Your task to perform on an android device: add a contact in the contacts app Image 0: 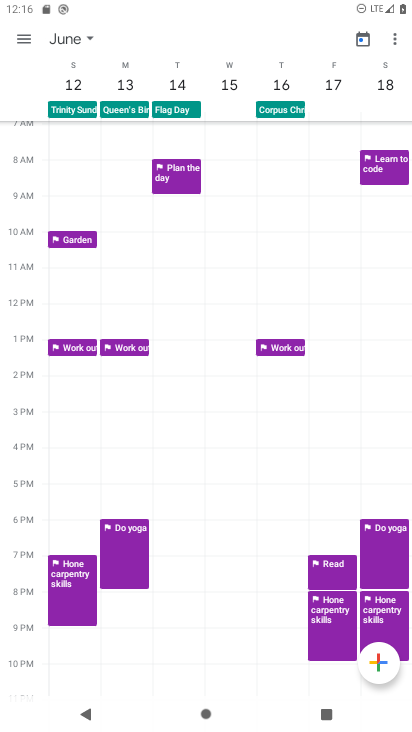
Step 0: press home button
Your task to perform on an android device: add a contact in the contacts app Image 1: 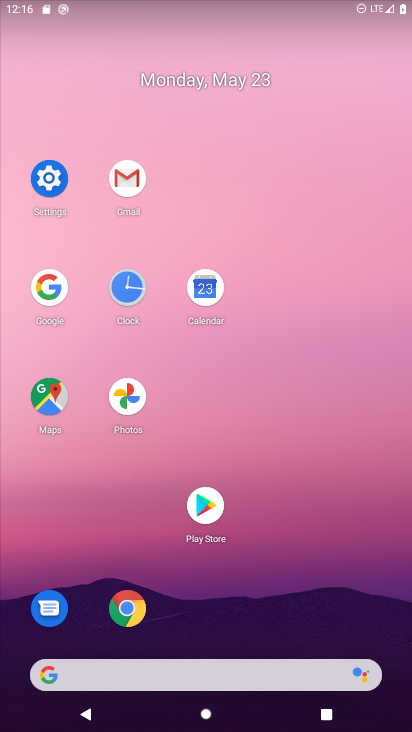
Step 1: drag from (357, 577) to (311, 223)
Your task to perform on an android device: add a contact in the contacts app Image 2: 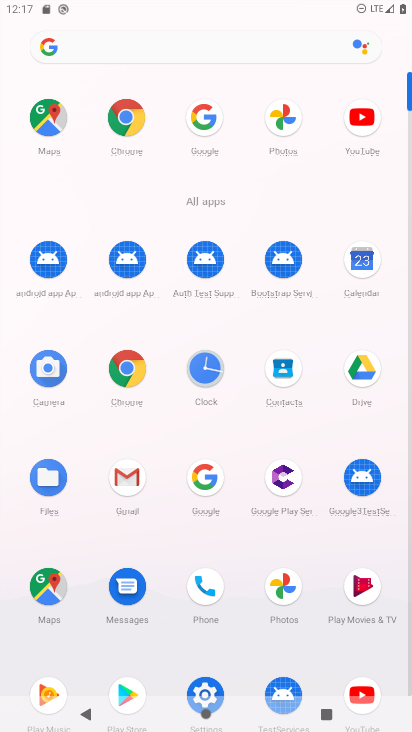
Step 2: click (296, 381)
Your task to perform on an android device: add a contact in the contacts app Image 3: 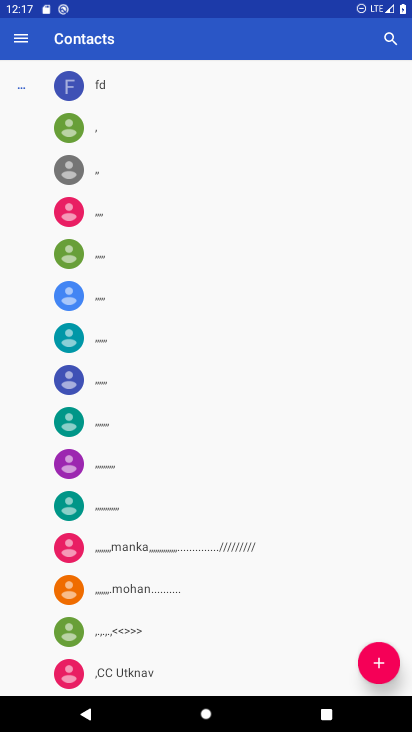
Step 3: click (392, 658)
Your task to perform on an android device: add a contact in the contacts app Image 4: 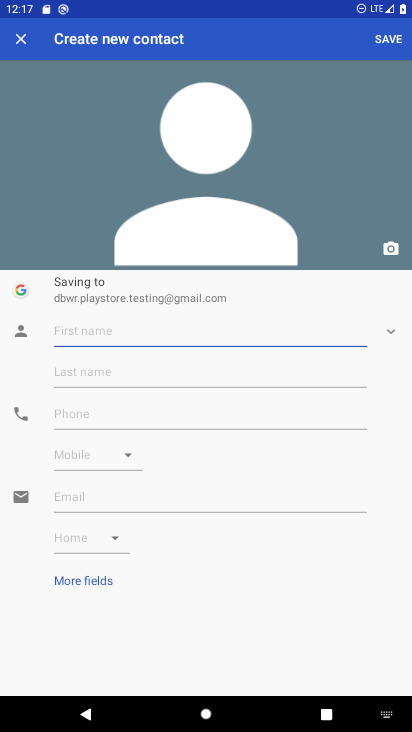
Step 4: type "sdcc"
Your task to perform on an android device: add a contact in the contacts app Image 5: 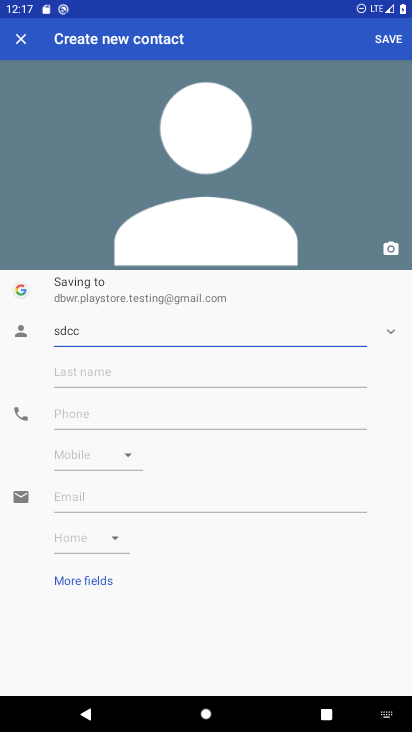
Step 5: click (169, 416)
Your task to perform on an android device: add a contact in the contacts app Image 6: 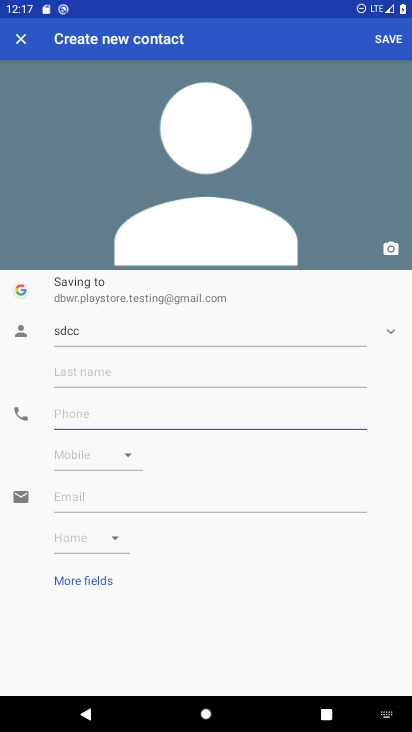
Step 6: click (220, 406)
Your task to perform on an android device: add a contact in the contacts app Image 7: 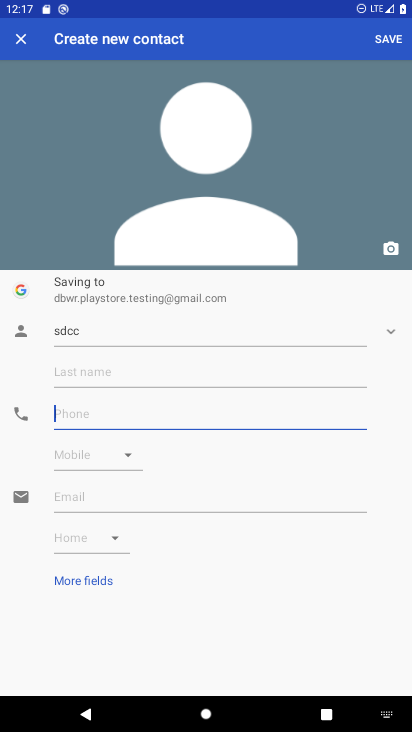
Step 7: type "4433221123"
Your task to perform on an android device: add a contact in the contacts app Image 8: 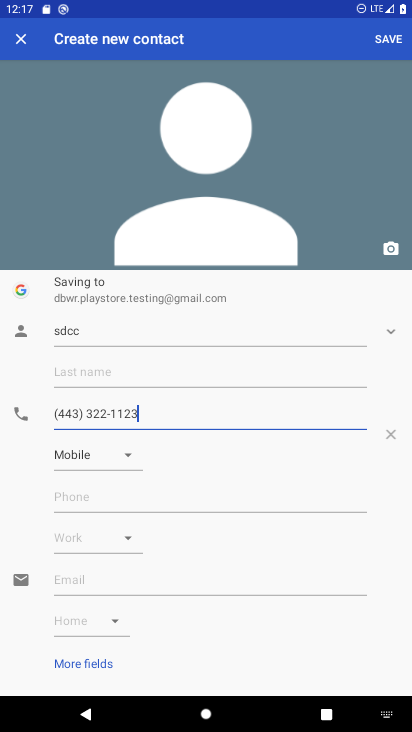
Step 8: click (385, 39)
Your task to perform on an android device: add a contact in the contacts app Image 9: 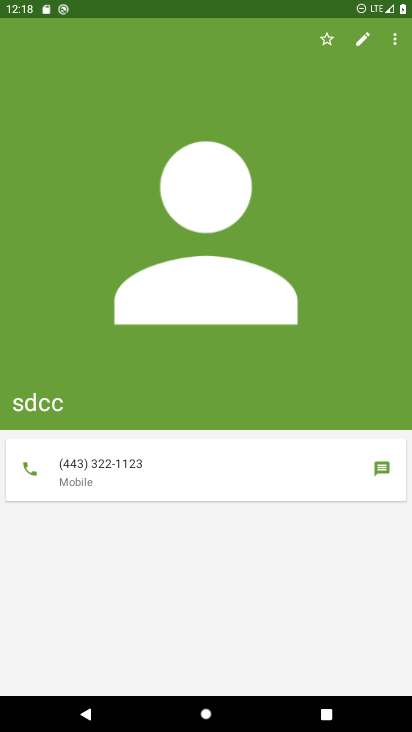
Step 9: task complete